Your task to perform on an android device: turn off location Image 0: 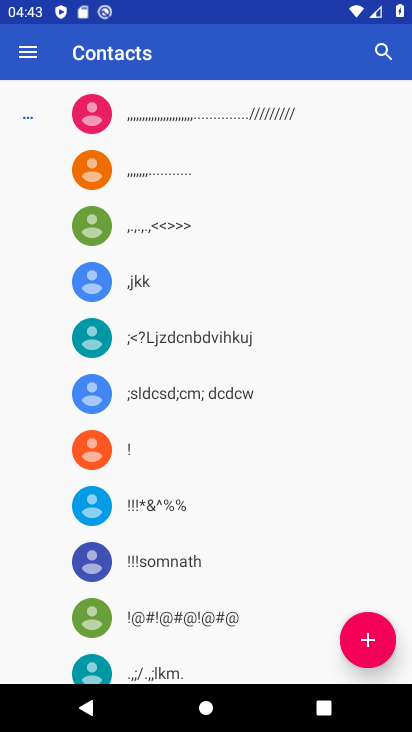
Step 0: press home button
Your task to perform on an android device: turn off location Image 1: 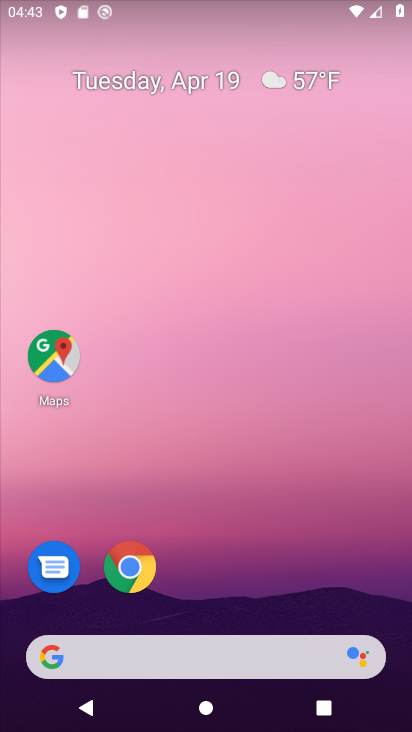
Step 1: drag from (340, 593) to (318, 182)
Your task to perform on an android device: turn off location Image 2: 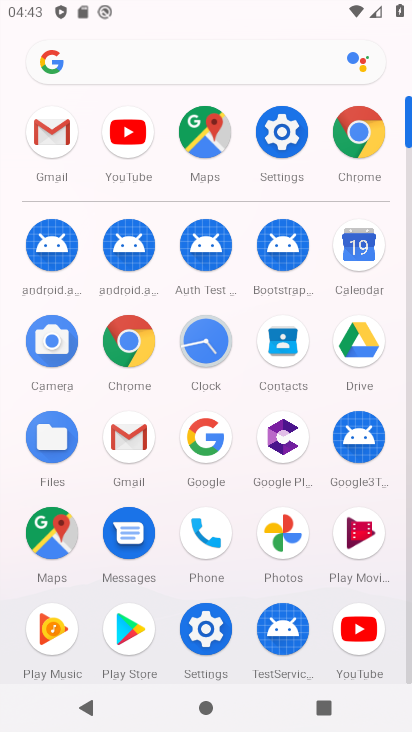
Step 2: click (215, 623)
Your task to perform on an android device: turn off location Image 3: 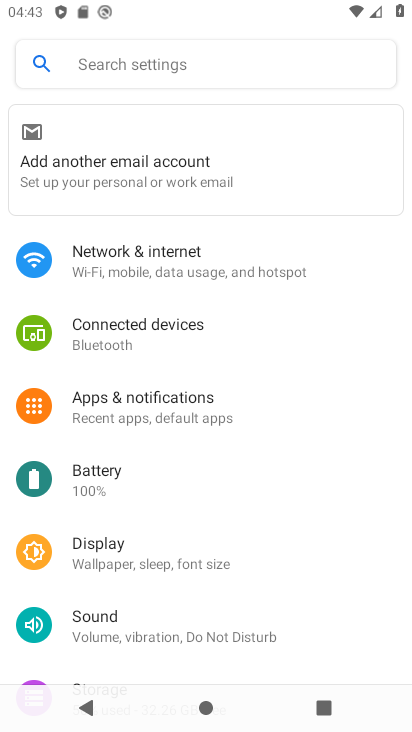
Step 3: drag from (328, 605) to (333, 503)
Your task to perform on an android device: turn off location Image 4: 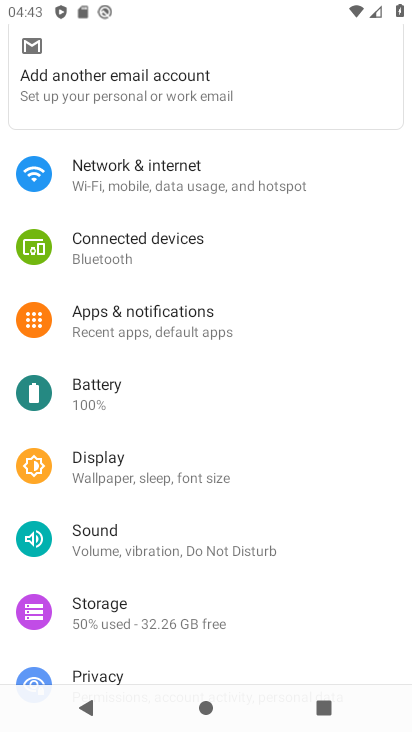
Step 4: drag from (347, 602) to (337, 462)
Your task to perform on an android device: turn off location Image 5: 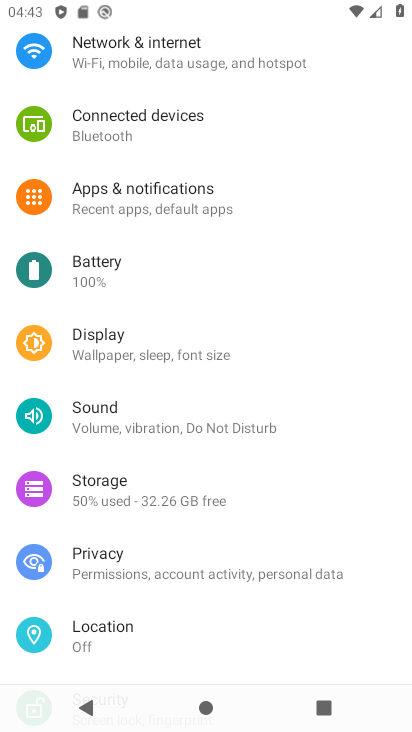
Step 5: drag from (346, 611) to (340, 441)
Your task to perform on an android device: turn off location Image 6: 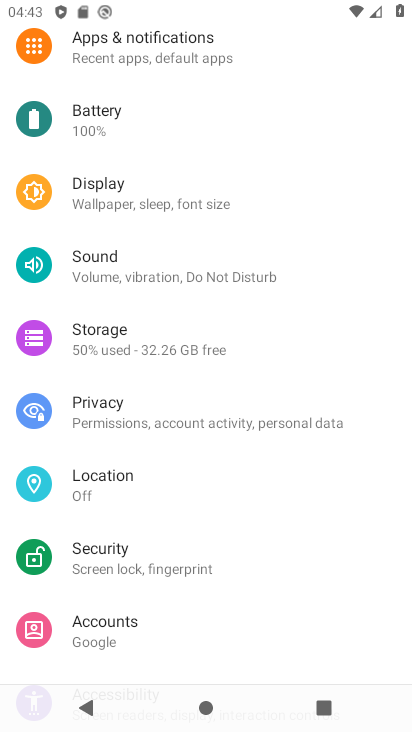
Step 6: drag from (320, 605) to (245, 438)
Your task to perform on an android device: turn off location Image 7: 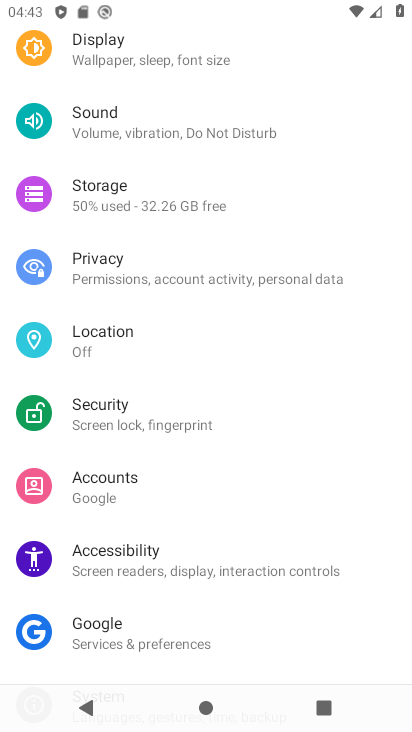
Step 7: click (110, 335)
Your task to perform on an android device: turn off location Image 8: 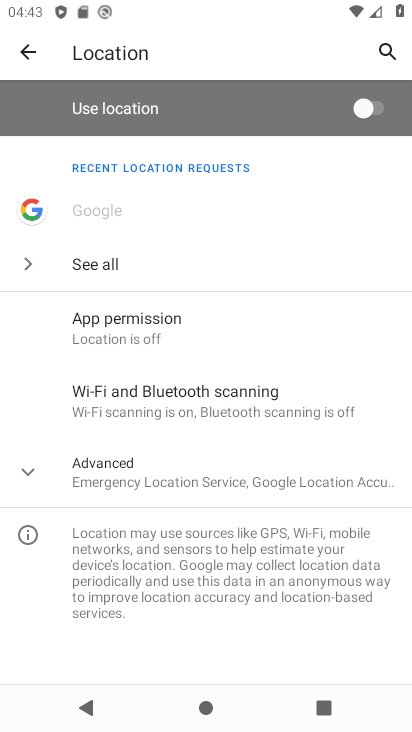
Step 8: task complete